Your task to perform on an android device: Find coffee shops on Maps Image 0: 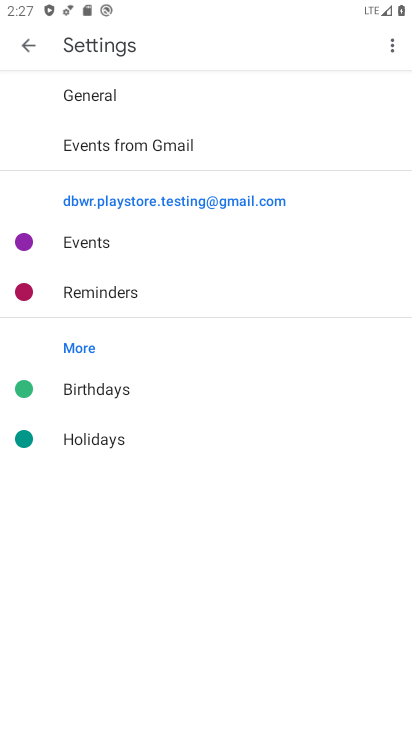
Step 0: press home button
Your task to perform on an android device: Find coffee shops on Maps Image 1: 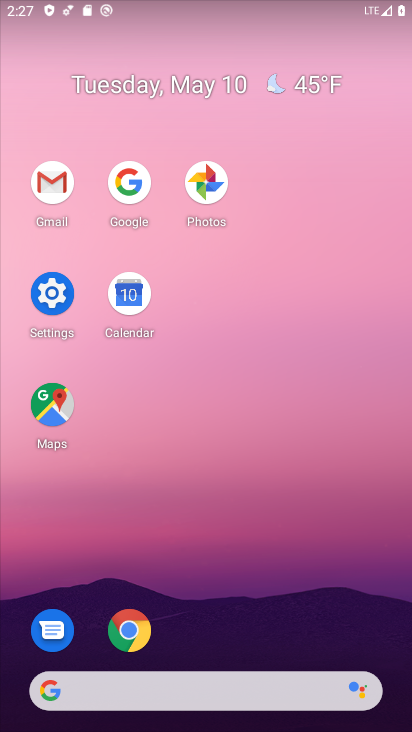
Step 1: click (42, 406)
Your task to perform on an android device: Find coffee shops on Maps Image 2: 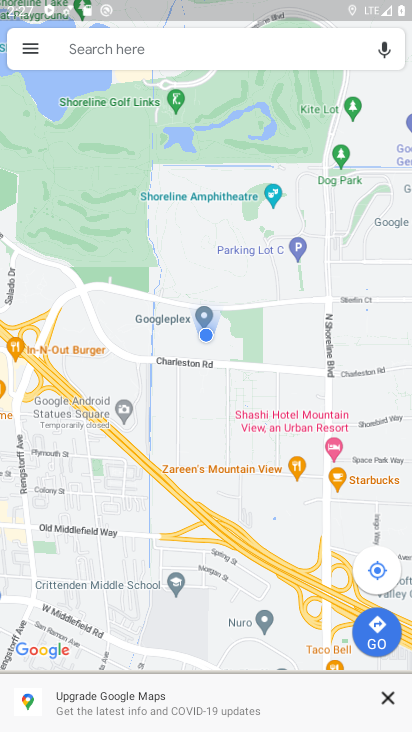
Step 2: click (217, 51)
Your task to perform on an android device: Find coffee shops on Maps Image 3: 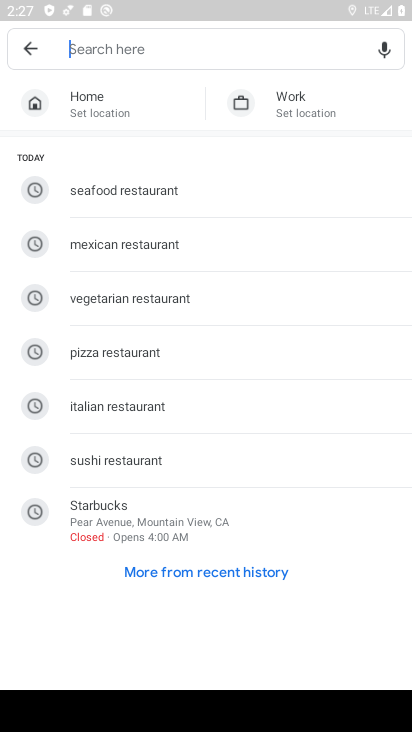
Step 3: type "coffee shops"
Your task to perform on an android device: Find coffee shops on Maps Image 4: 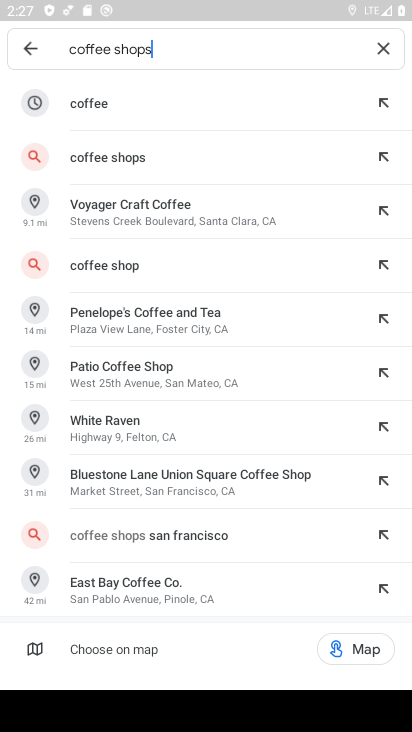
Step 4: click (121, 160)
Your task to perform on an android device: Find coffee shops on Maps Image 5: 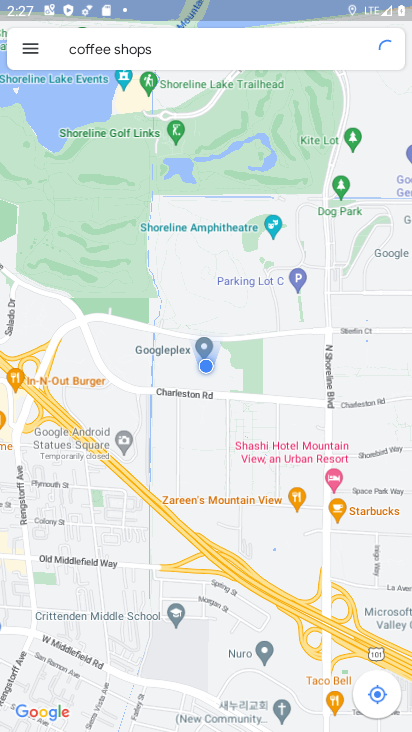
Step 5: task complete